Your task to perform on an android device: Open Google Chrome and click the shortcut for Amazon.com Image 0: 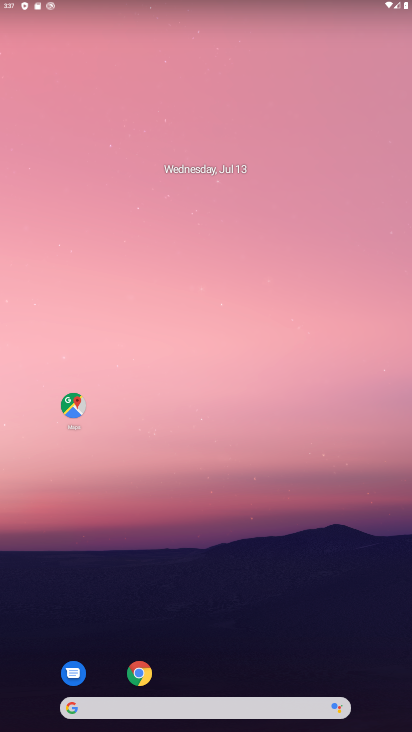
Step 0: click (147, 675)
Your task to perform on an android device: Open Google Chrome and click the shortcut for Amazon.com Image 1: 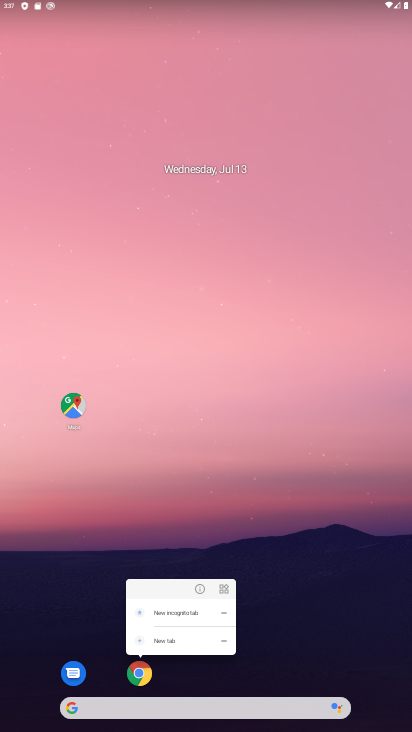
Step 1: click (138, 678)
Your task to perform on an android device: Open Google Chrome and click the shortcut for Amazon.com Image 2: 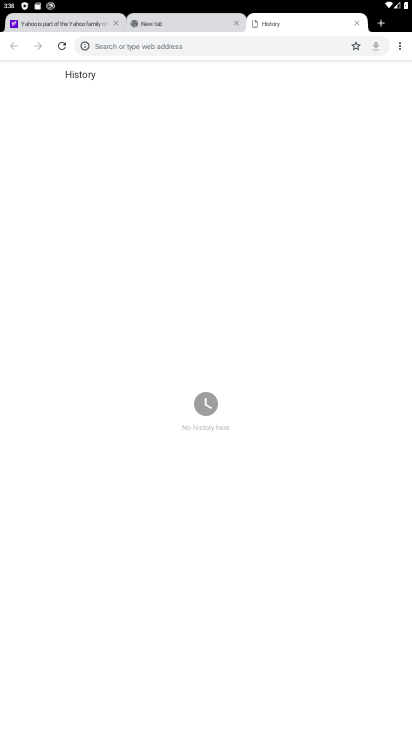
Step 2: click (354, 24)
Your task to perform on an android device: Open Google Chrome and click the shortcut for Amazon.com Image 3: 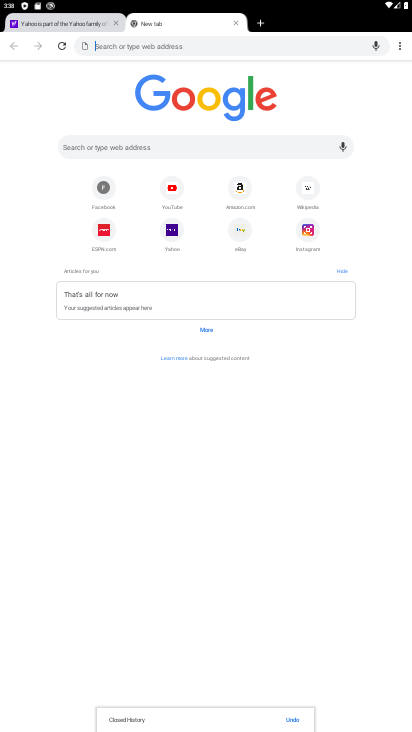
Step 3: click (243, 191)
Your task to perform on an android device: Open Google Chrome and click the shortcut for Amazon.com Image 4: 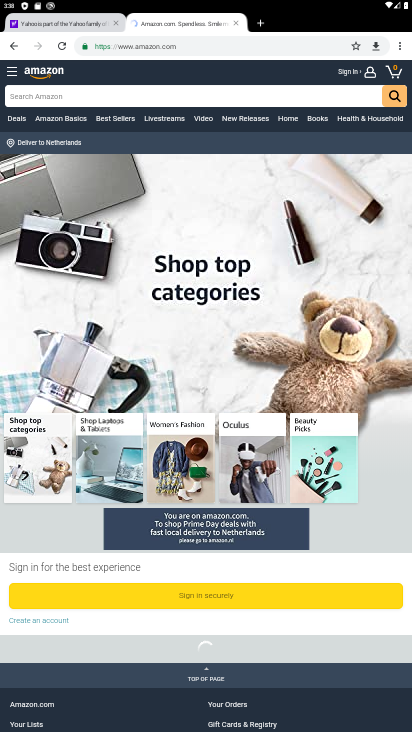
Step 4: task complete